Your task to perform on an android device: uninstall "Paramount+ | Peak Streaming" Image 0: 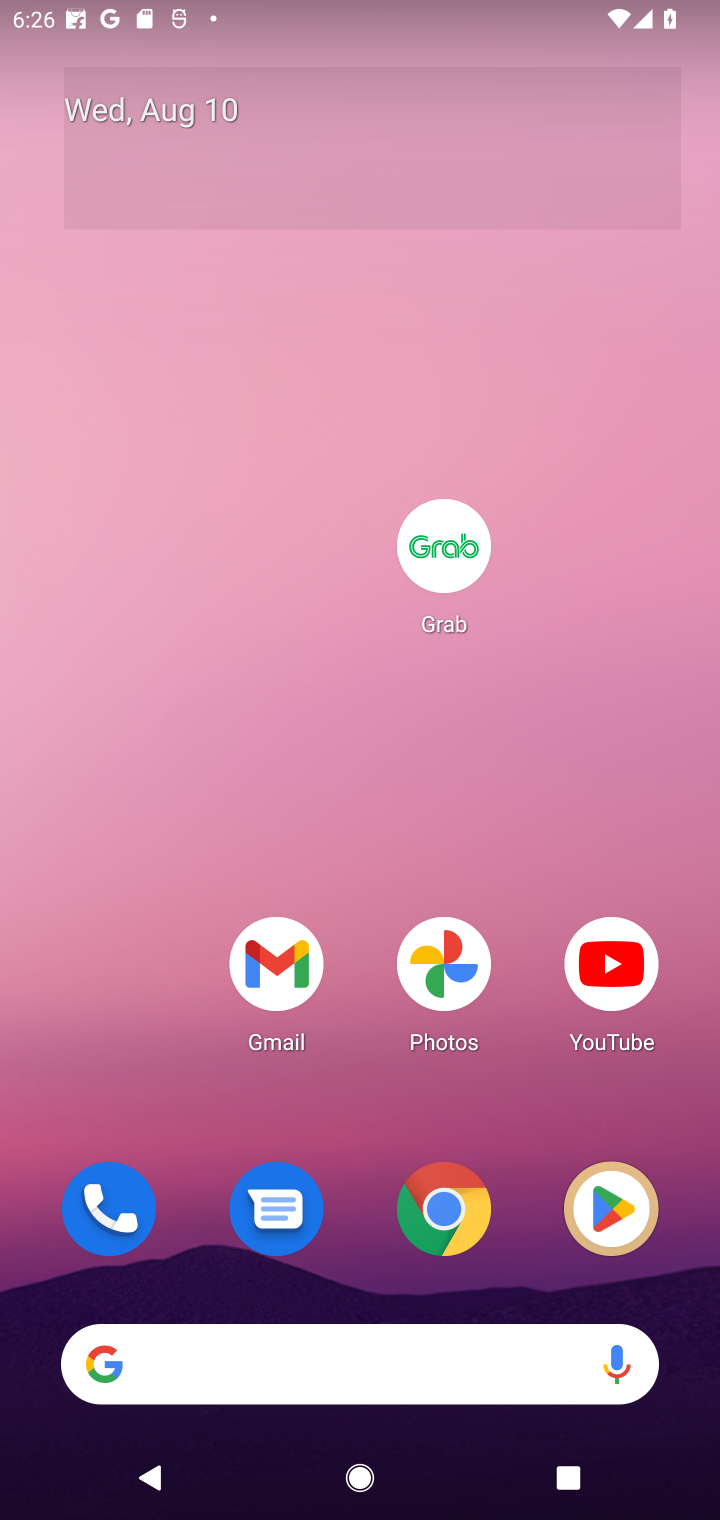
Step 0: drag from (340, 1318) to (435, 2)
Your task to perform on an android device: uninstall "Paramount+ | Peak Streaming" Image 1: 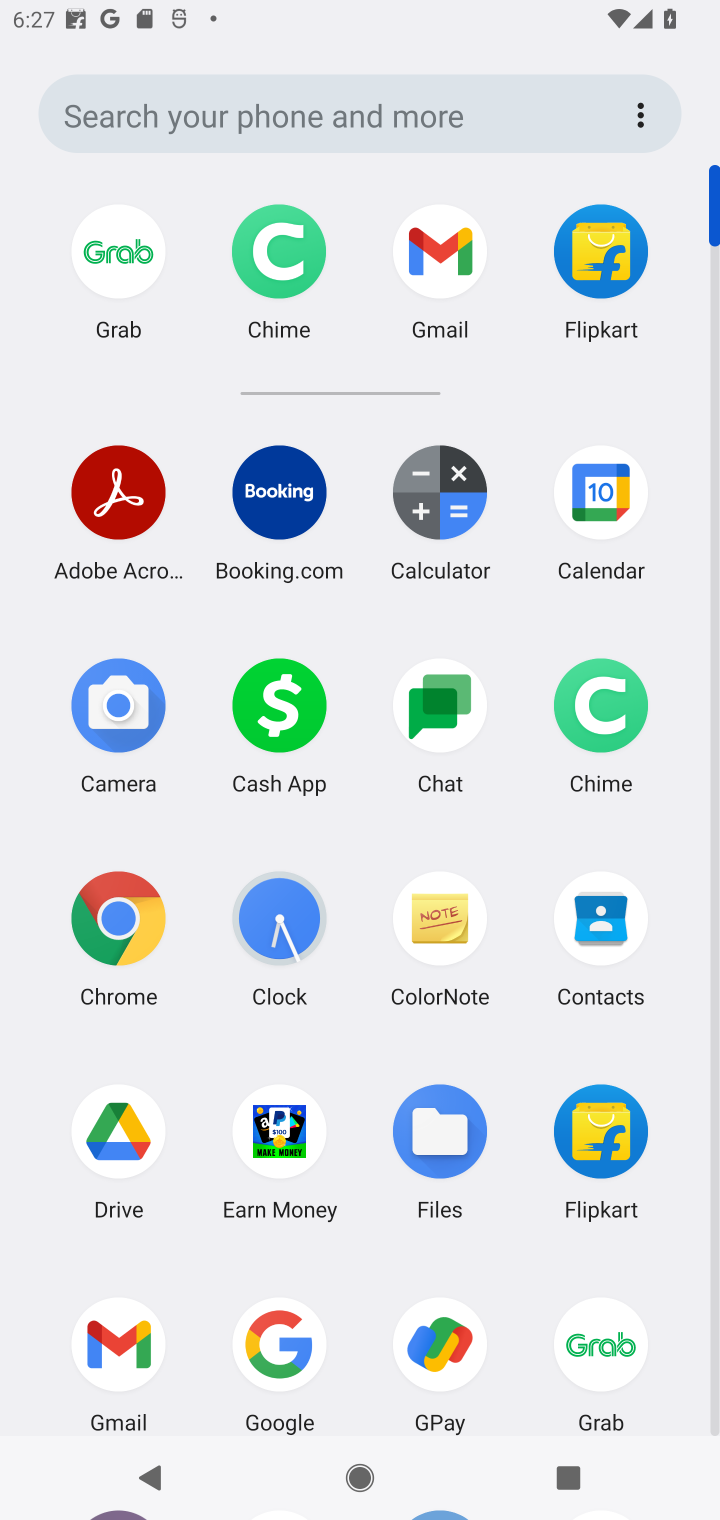
Step 1: click (713, 1433)
Your task to perform on an android device: uninstall "Paramount+ | Peak Streaming" Image 2: 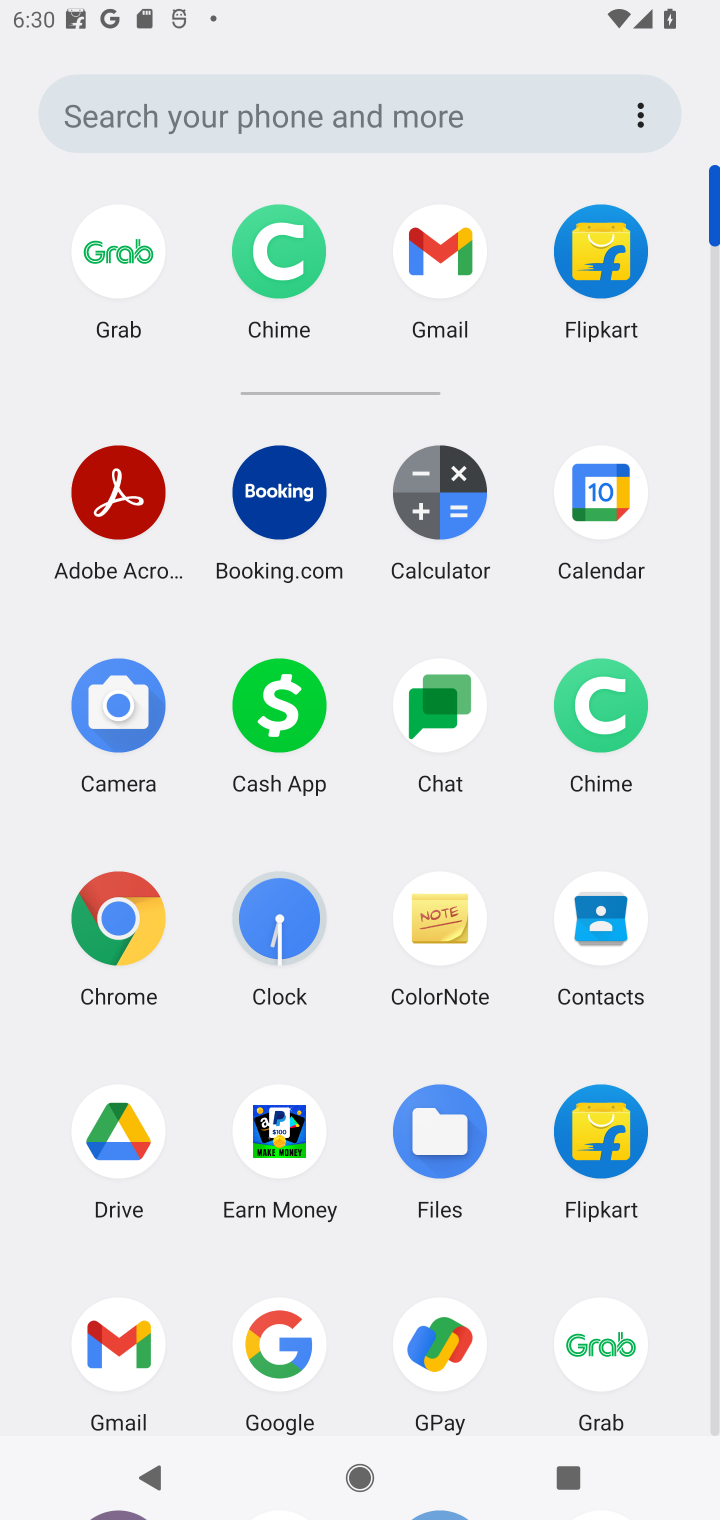
Step 2: click (518, 114)
Your task to perform on an android device: uninstall "Paramount+ | Peak Streaming" Image 3: 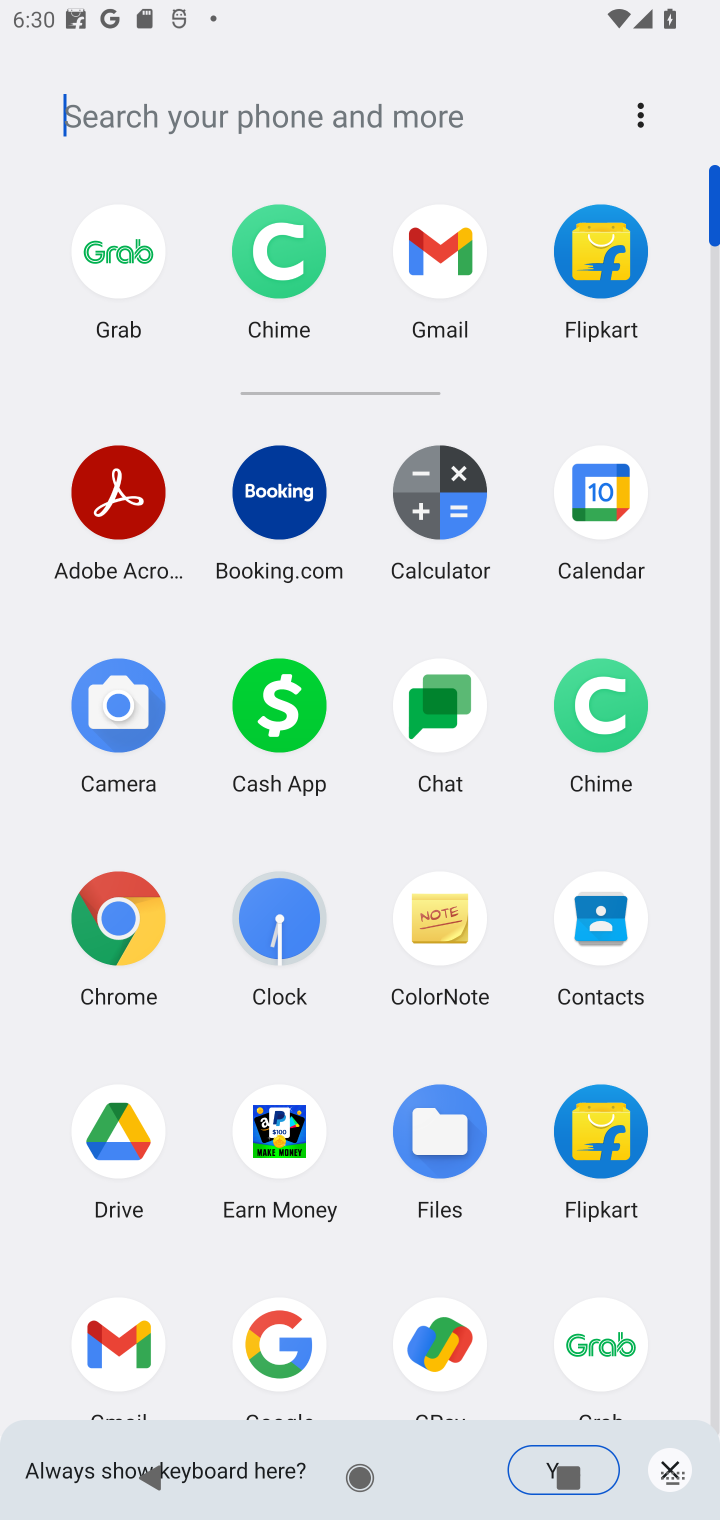
Step 3: type ""
Your task to perform on an android device: uninstall "Paramount+ | Peak Streaming" Image 4: 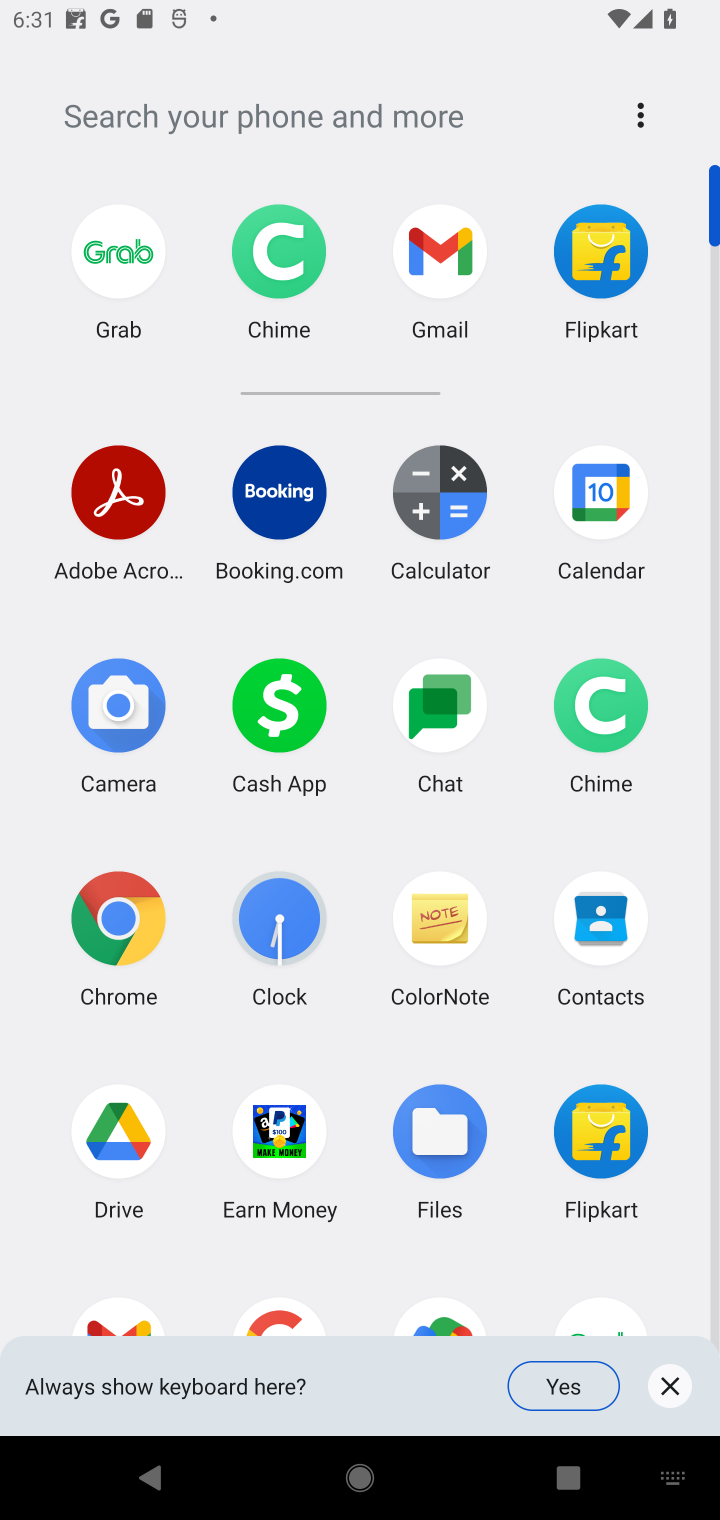
Step 4: type "parmount"
Your task to perform on an android device: uninstall "Paramount+ | Peak Streaming" Image 5: 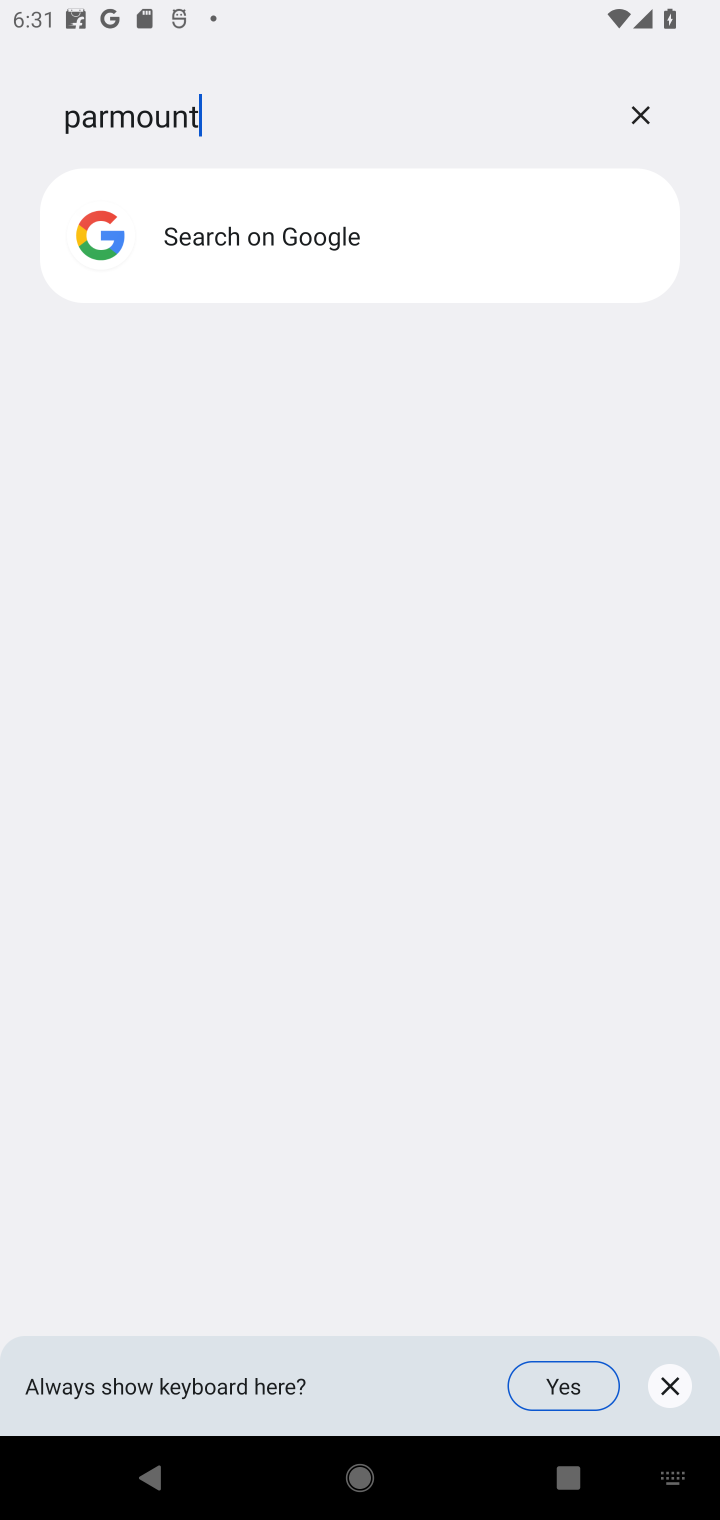
Step 5: task complete